Your task to perform on an android device: refresh tabs in the chrome app Image 0: 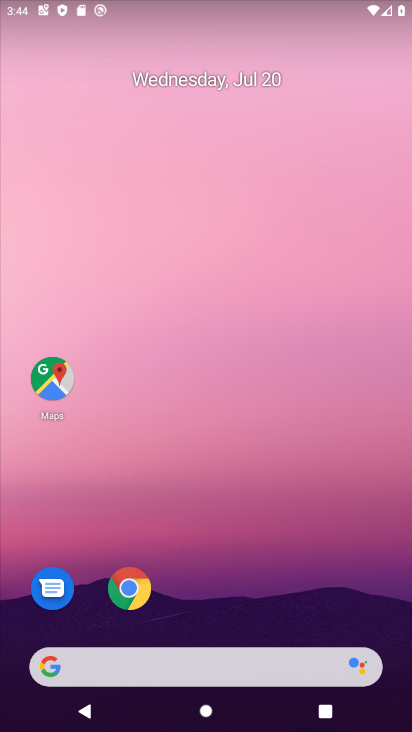
Step 0: drag from (296, 618) to (302, 33)
Your task to perform on an android device: refresh tabs in the chrome app Image 1: 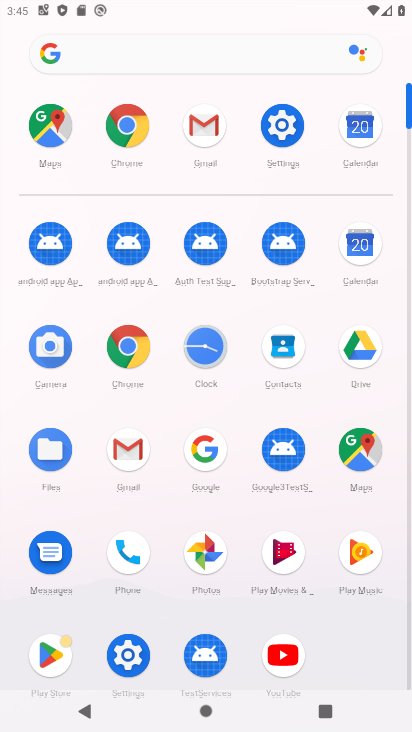
Step 1: click (136, 120)
Your task to perform on an android device: refresh tabs in the chrome app Image 2: 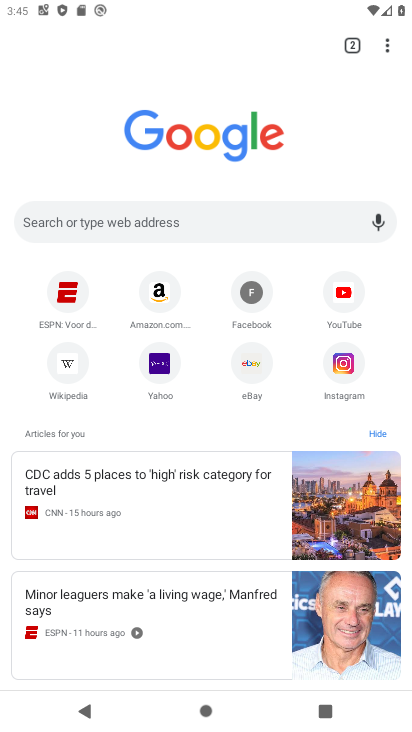
Step 2: click (392, 42)
Your task to perform on an android device: refresh tabs in the chrome app Image 3: 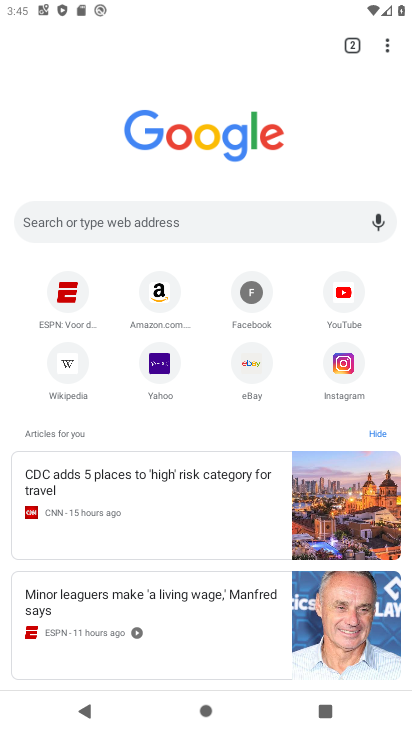
Step 3: task complete